Your task to perform on an android device: open app "ZOOM Cloud Meetings" (install if not already installed) Image 0: 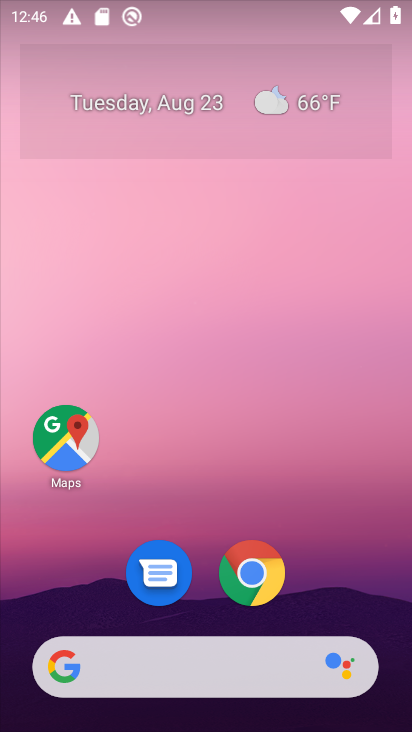
Step 0: drag from (209, 494) to (273, 97)
Your task to perform on an android device: open app "ZOOM Cloud Meetings" (install if not already installed) Image 1: 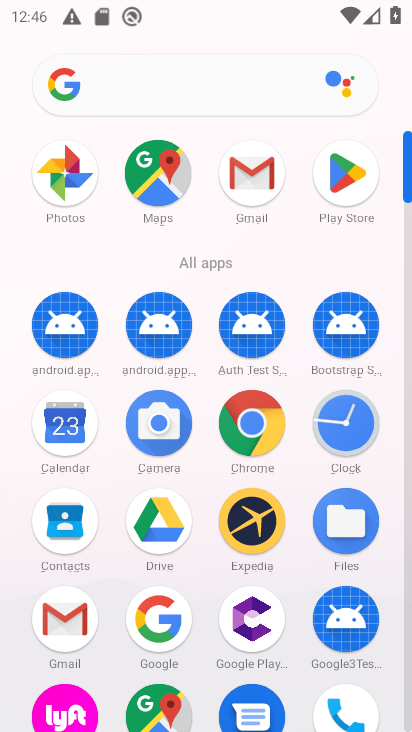
Step 1: click (327, 169)
Your task to perform on an android device: open app "ZOOM Cloud Meetings" (install if not already installed) Image 2: 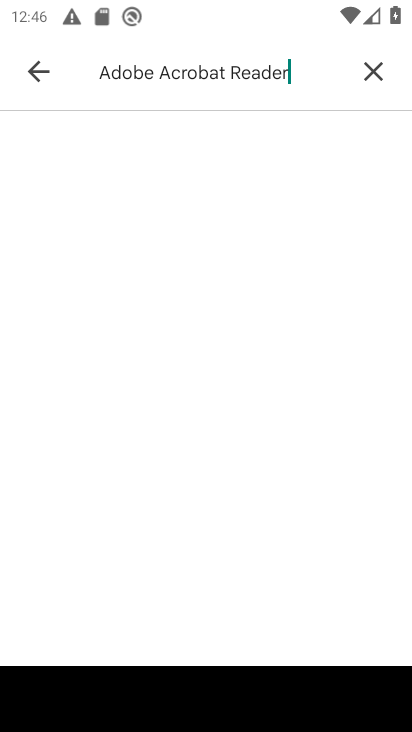
Step 2: click (366, 73)
Your task to perform on an android device: open app "ZOOM Cloud Meetings" (install if not already installed) Image 3: 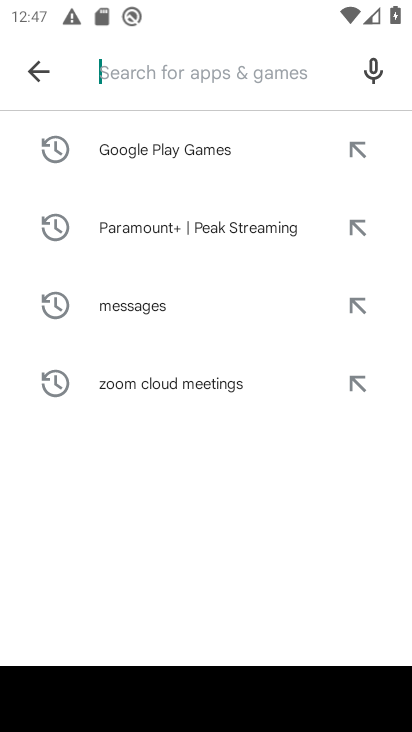
Step 3: type "ZOOM Cloud Meetings"
Your task to perform on an android device: open app "ZOOM Cloud Meetings" (install if not already installed) Image 4: 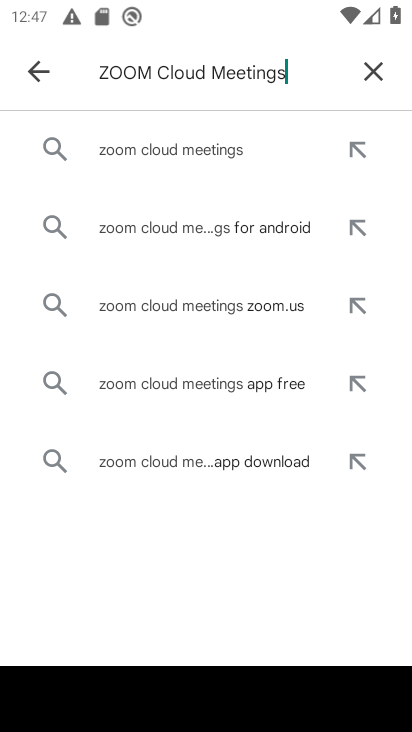
Step 4: type ""
Your task to perform on an android device: open app "ZOOM Cloud Meetings" (install if not already installed) Image 5: 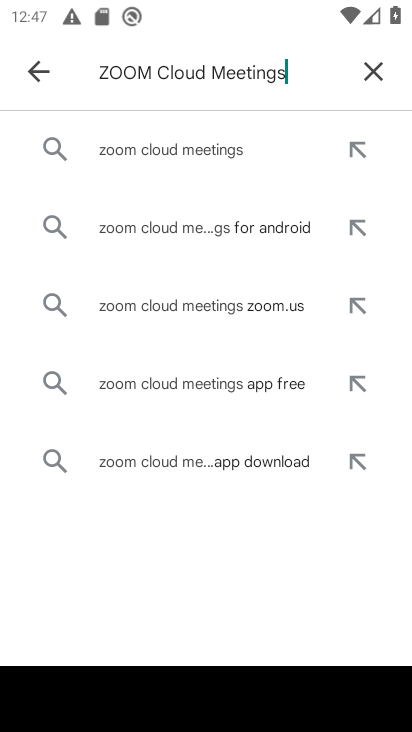
Step 5: click (200, 140)
Your task to perform on an android device: open app "ZOOM Cloud Meetings" (install if not already installed) Image 6: 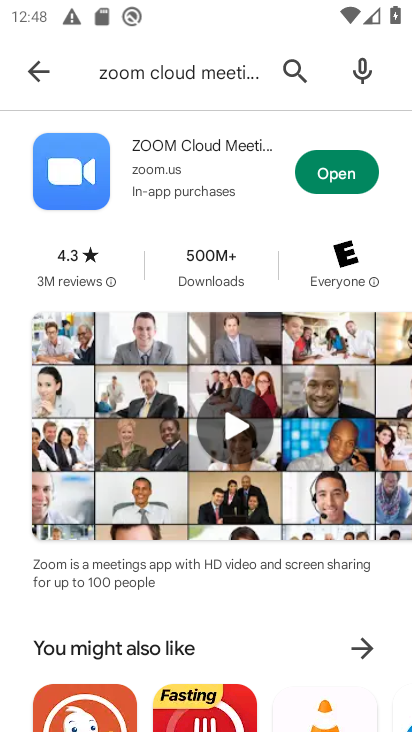
Step 6: click (320, 177)
Your task to perform on an android device: open app "ZOOM Cloud Meetings" (install if not already installed) Image 7: 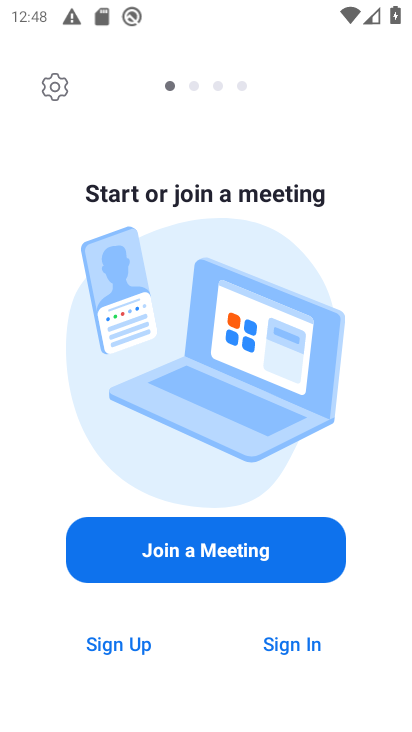
Step 7: task complete